Your task to perform on an android device: Open the map Image 0: 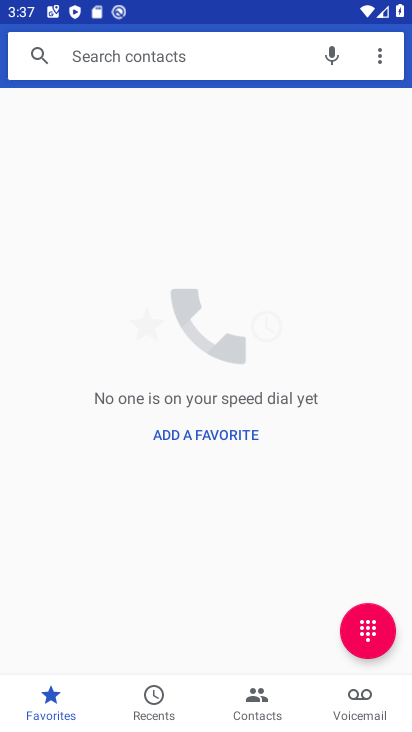
Step 0: press home button
Your task to perform on an android device: Open the map Image 1: 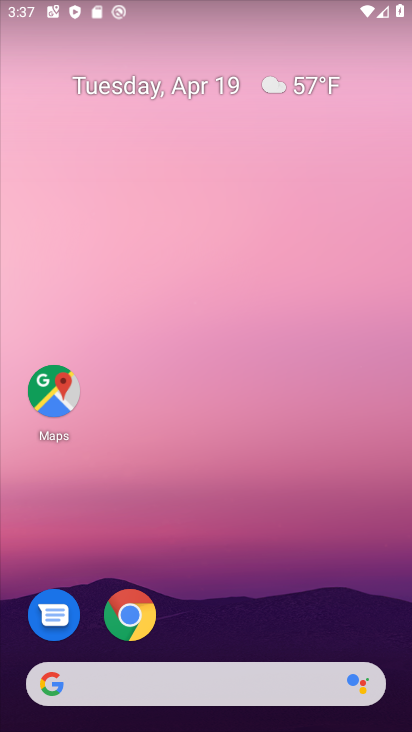
Step 1: drag from (221, 634) to (221, 233)
Your task to perform on an android device: Open the map Image 2: 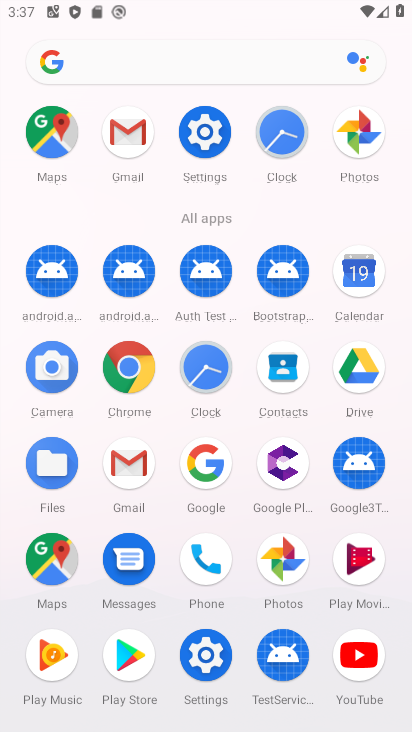
Step 2: click (134, 648)
Your task to perform on an android device: Open the map Image 3: 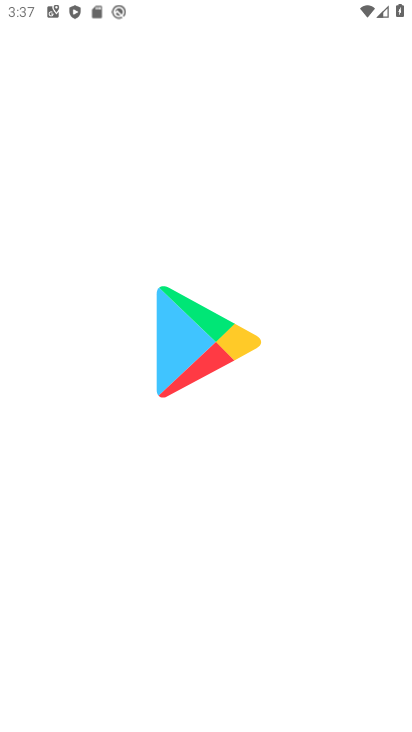
Step 3: press home button
Your task to perform on an android device: Open the map Image 4: 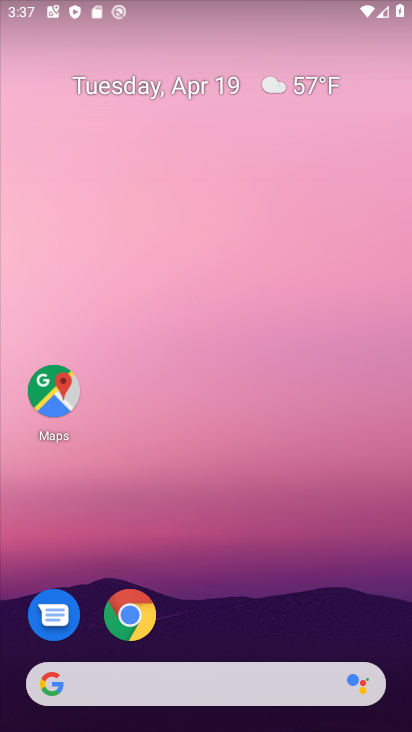
Step 4: click (49, 384)
Your task to perform on an android device: Open the map Image 5: 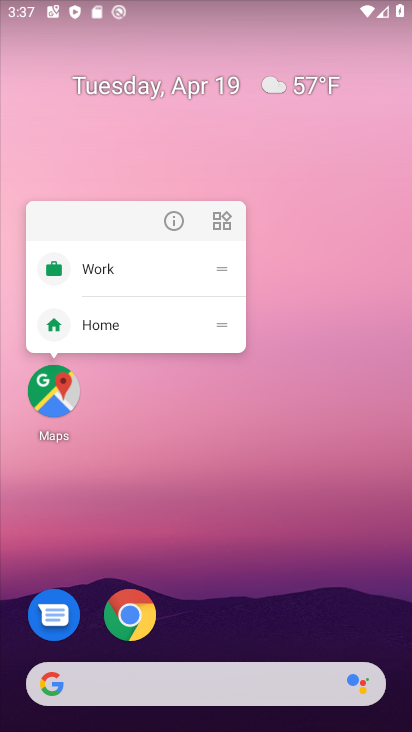
Step 5: click (49, 384)
Your task to perform on an android device: Open the map Image 6: 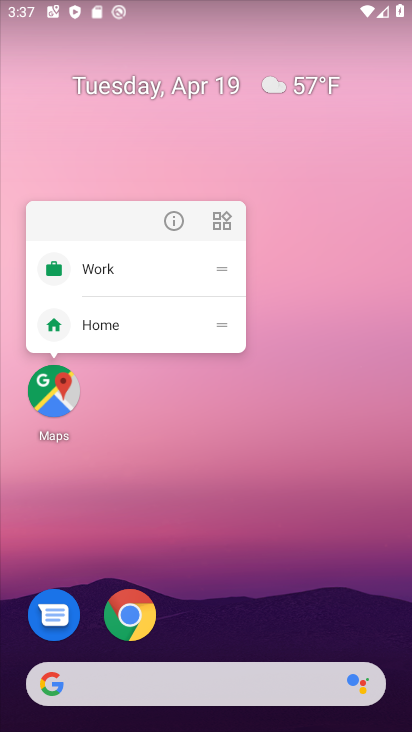
Step 6: click (49, 384)
Your task to perform on an android device: Open the map Image 7: 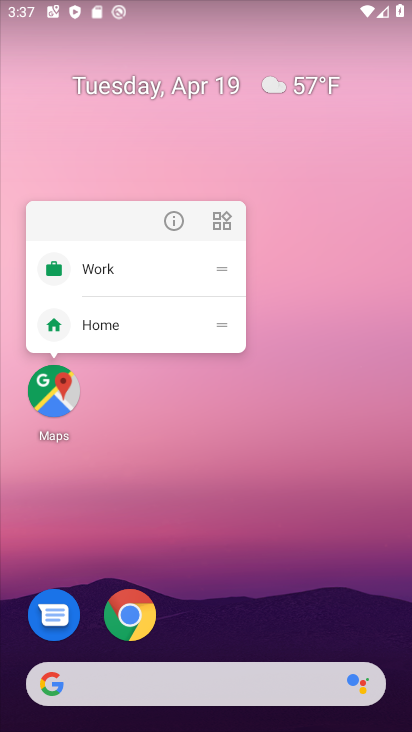
Step 7: click (49, 384)
Your task to perform on an android device: Open the map Image 8: 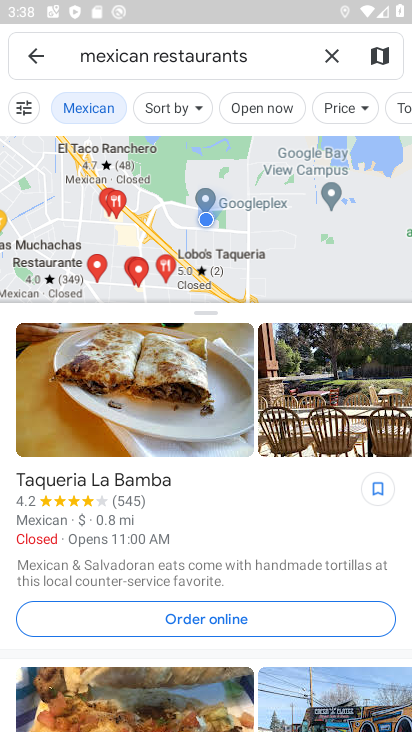
Step 8: task complete